Your task to perform on an android device: delete the emails in spam in the gmail app Image 0: 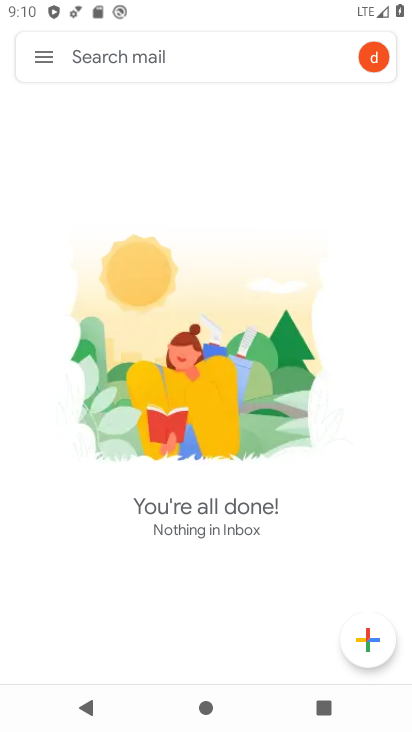
Step 0: press home button
Your task to perform on an android device: delete the emails in spam in the gmail app Image 1: 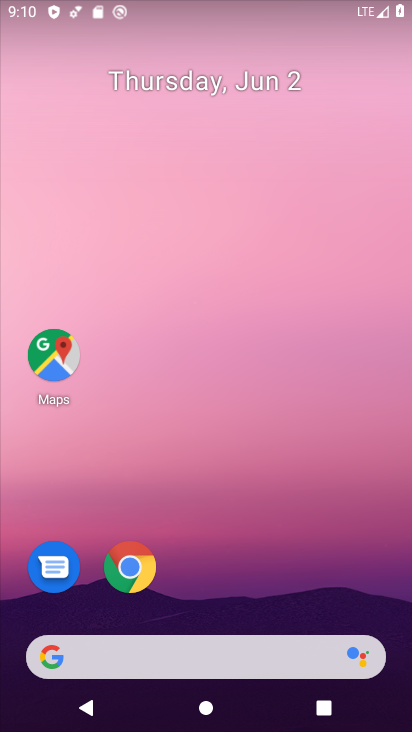
Step 1: drag from (355, 548) to (352, 103)
Your task to perform on an android device: delete the emails in spam in the gmail app Image 2: 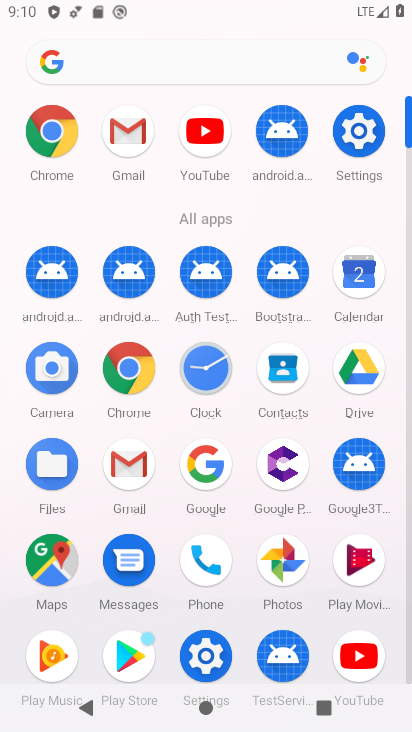
Step 2: click (127, 465)
Your task to perform on an android device: delete the emails in spam in the gmail app Image 3: 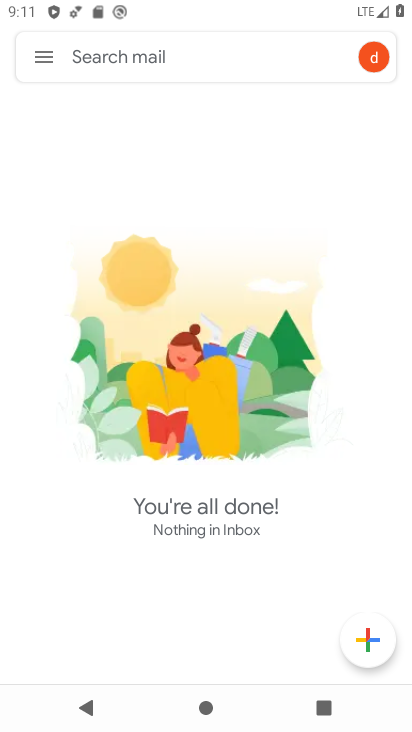
Step 3: click (56, 66)
Your task to perform on an android device: delete the emails in spam in the gmail app Image 4: 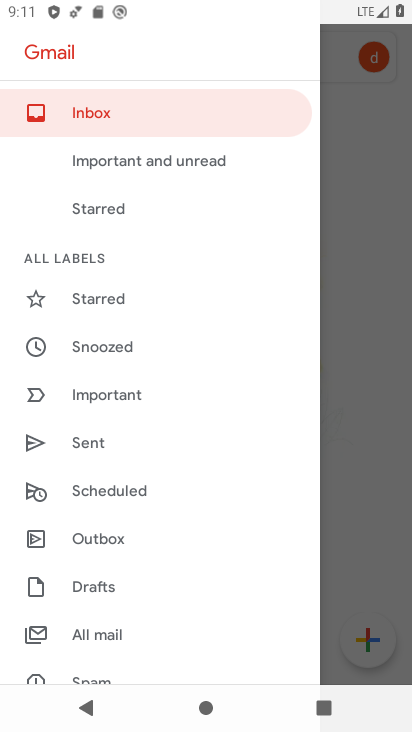
Step 4: drag from (134, 586) to (169, 372)
Your task to perform on an android device: delete the emails in spam in the gmail app Image 5: 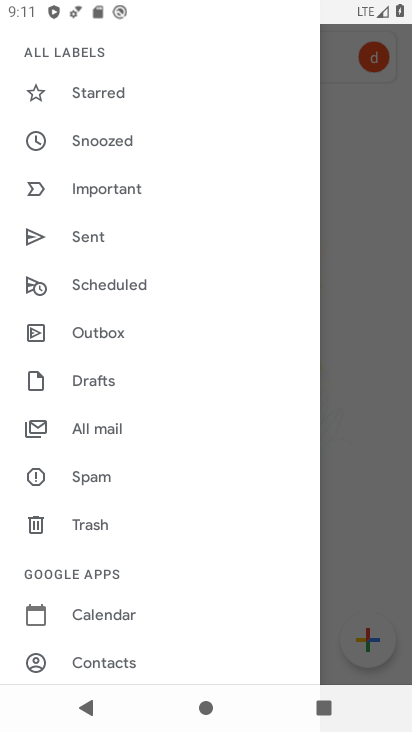
Step 5: click (85, 486)
Your task to perform on an android device: delete the emails in spam in the gmail app Image 6: 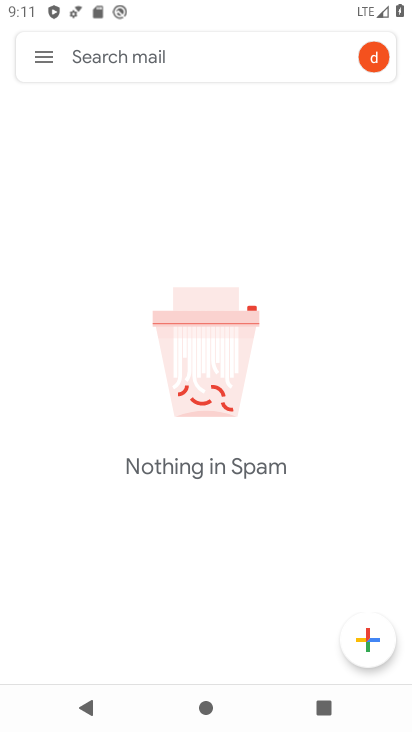
Step 6: click (43, 70)
Your task to perform on an android device: delete the emails in spam in the gmail app Image 7: 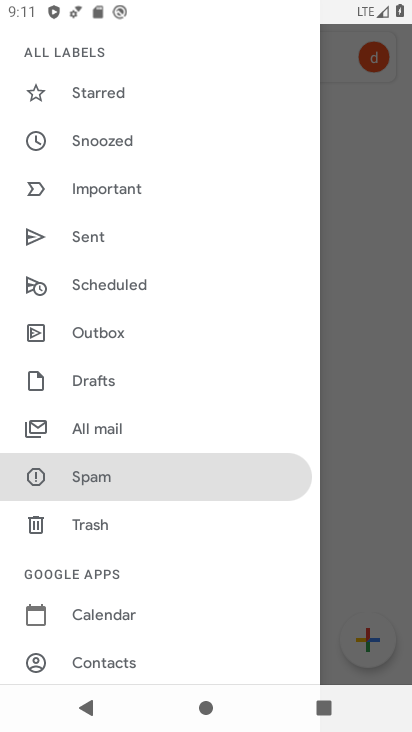
Step 7: task complete